Your task to perform on an android device: Add lenovo thinkpad to the cart on ebay.com, then select checkout. Image 0: 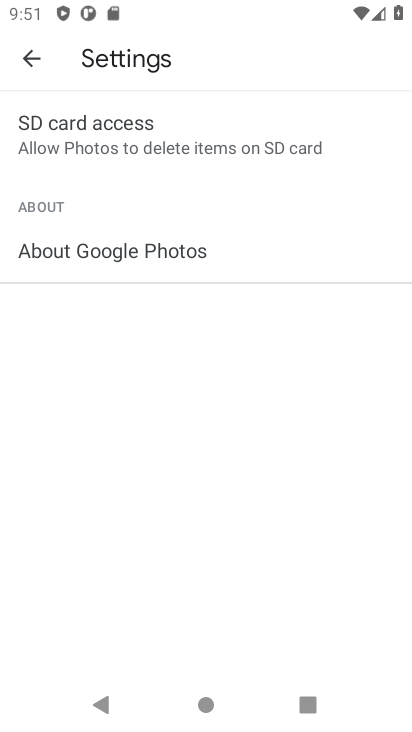
Step 0: press home button
Your task to perform on an android device: Add lenovo thinkpad to the cart on ebay.com, then select checkout. Image 1: 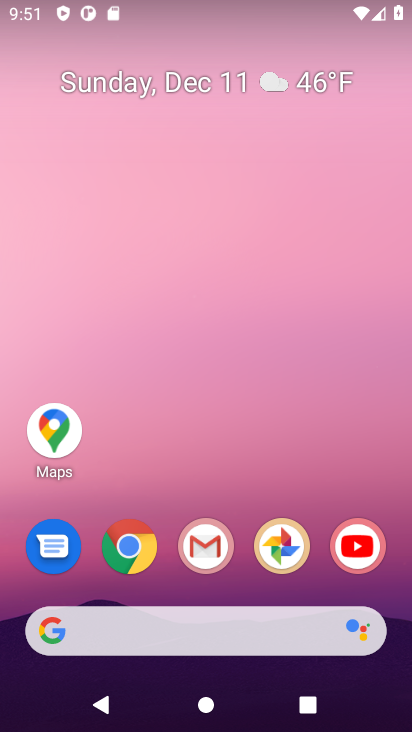
Step 1: click (132, 557)
Your task to perform on an android device: Add lenovo thinkpad to the cart on ebay.com, then select checkout. Image 2: 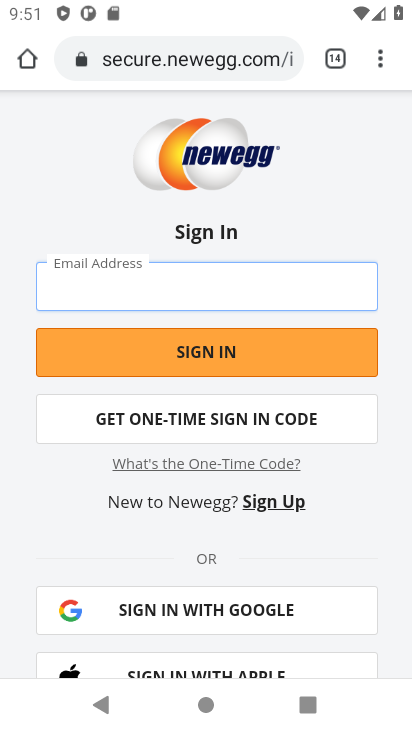
Step 2: click (166, 65)
Your task to perform on an android device: Add lenovo thinkpad to the cart on ebay.com, then select checkout. Image 3: 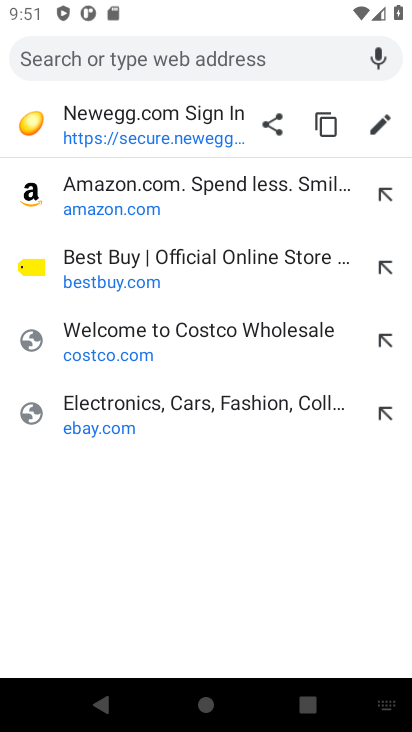
Step 3: click (79, 412)
Your task to perform on an android device: Add lenovo thinkpad to the cart on ebay.com, then select checkout. Image 4: 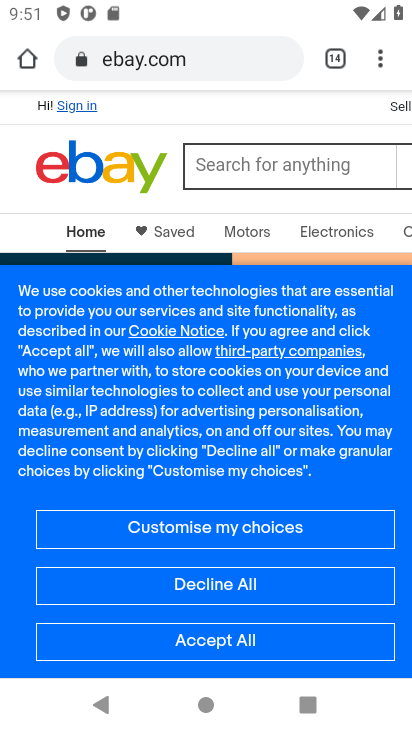
Step 4: click (286, 172)
Your task to perform on an android device: Add lenovo thinkpad to the cart on ebay.com, then select checkout. Image 5: 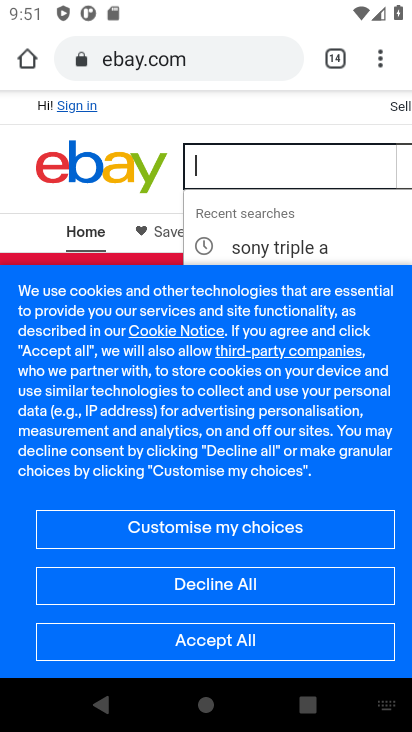
Step 5: type "lenovo thinkpad"
Your task to perform on an android device: Add lenovo thinkpad to the cart on ebay.com, then select checkout. Image 6: 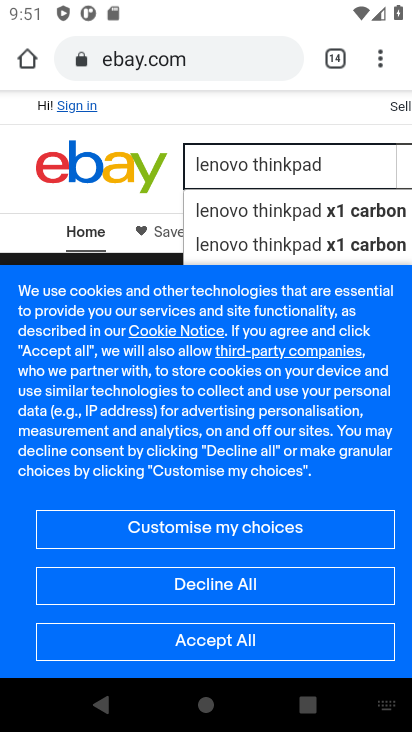
Step 6: drag from (347, 132) to (44, 119)
Your task to perform on an android device: Add lenovo thinkpad to the cart on ebay.com, then select checkout. Image 7: 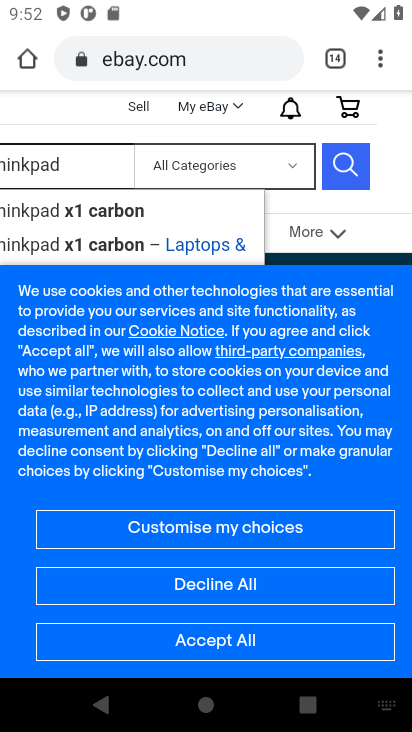
Step 7: click (351, 178)
Your task to perform on an android device: Add lenovo thinkpad to the cart on ebay.com, then select checkout. Image 8: 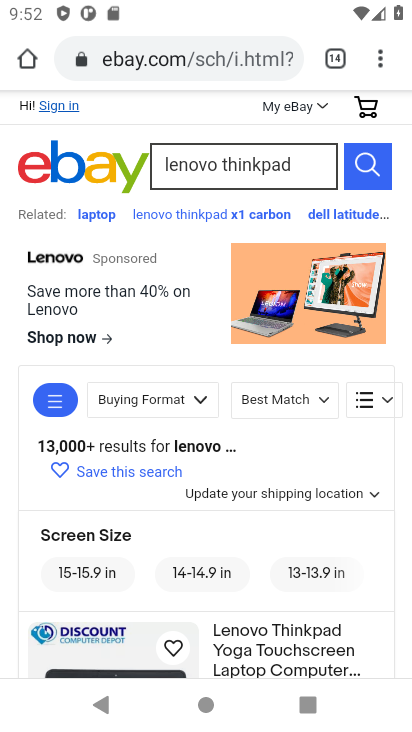
Step 8: drag from (264, 487) to (238, 240)
Your task to perform on an android device: Add lenovo thinkpad to the cart on ebay.com, then select checkout. Image 9: 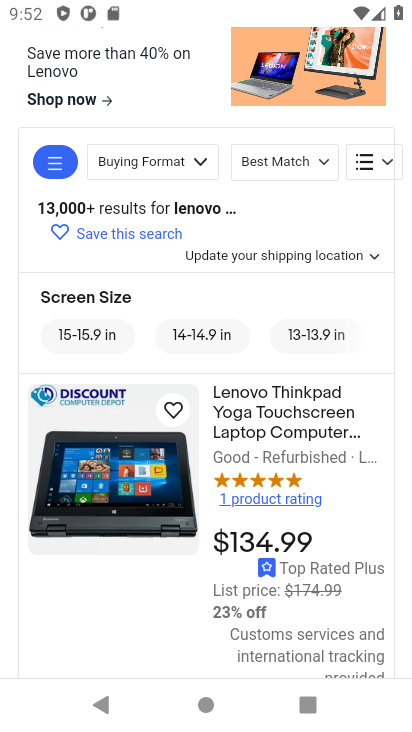
Step 9: drag from (256, 425) to (246, 273)
Your task to perform on an android device: Add lenovo thinkpad to the cart on ebay.com, then select checkout. Image 10: 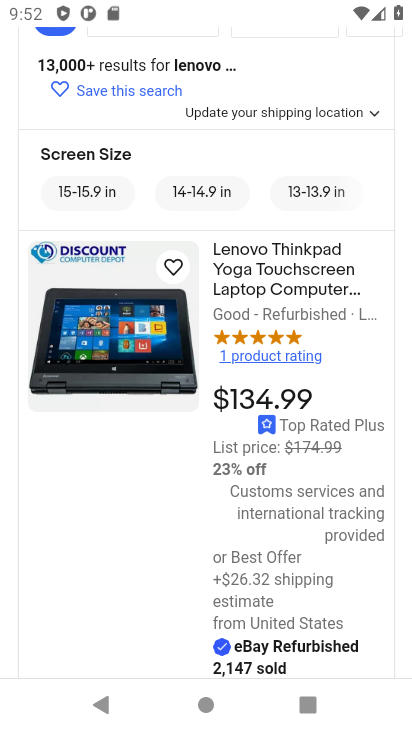
Step 10: click (259, 292)
Your task to perform on an android device: Add lenovo thinkpad to the cart on ebay.com, then select checkout. Image 11: 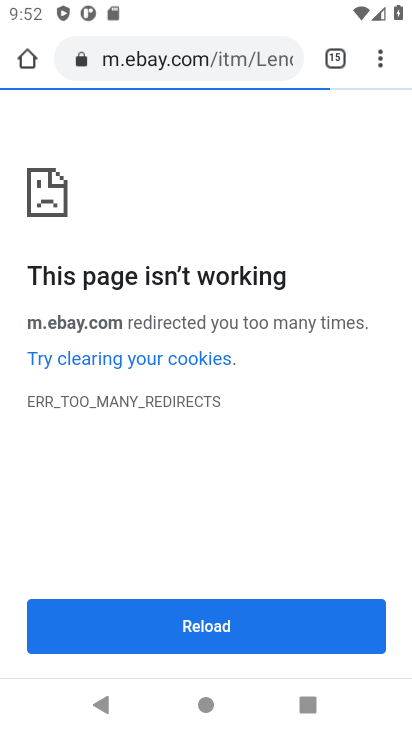
Step 11: task complete